Your task to perform on an android device: open sync settings in chrome Image 0: 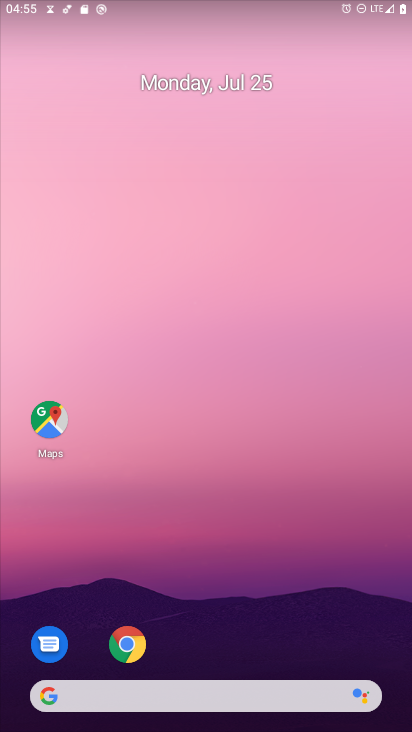
Step 0: press home button
Your task to perform on an android device: open sync settings in chrome Image 1: 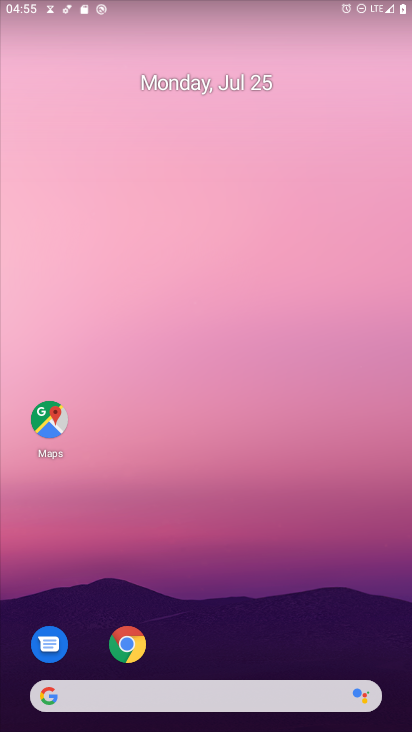
Step 1: click (124, 633)
Your task to perform on an android device: open sync settings in chrome Image 2: 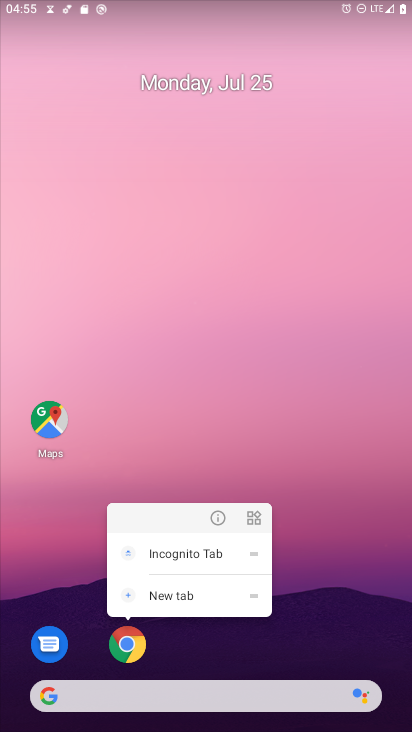
Step 2: click (122, 635)
Your task to perform on an android device: open sync settings in chrome Image 3: 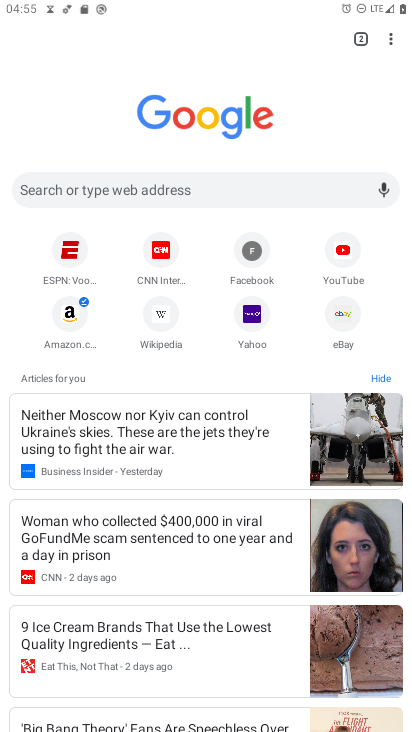
Step 3: drag from (389, 26) to (265, 313)
Your task to perform on an android device: open sync settings in chrome Image 4: 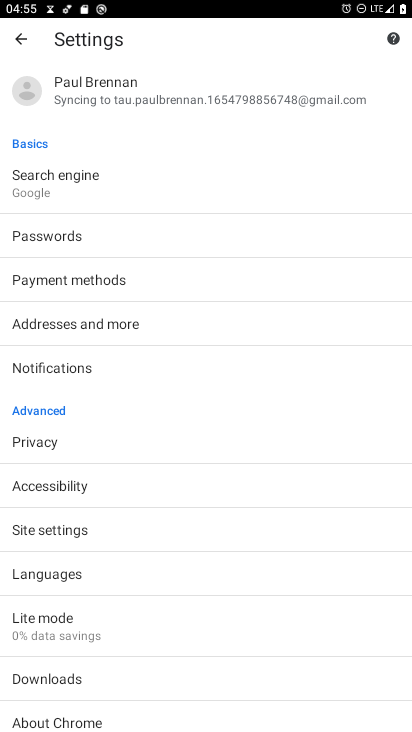
Step 4: click (144, 99)
Your task to perform on an android device: open sync settings in chrome Image 5: 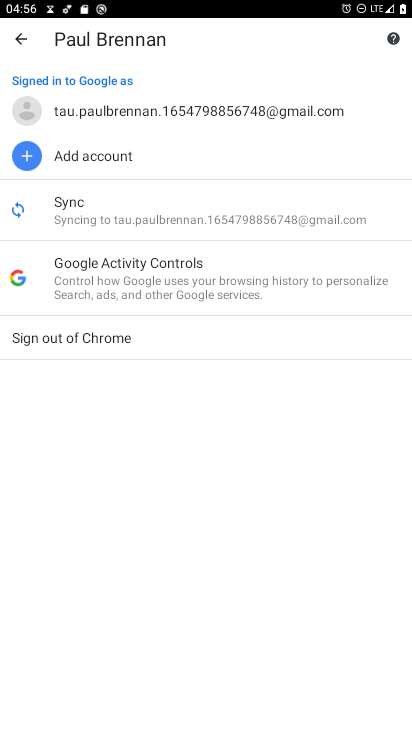
Step 5: click (104, 214)
Your task to perform on an android device: open sync settings in chrome Image 6: 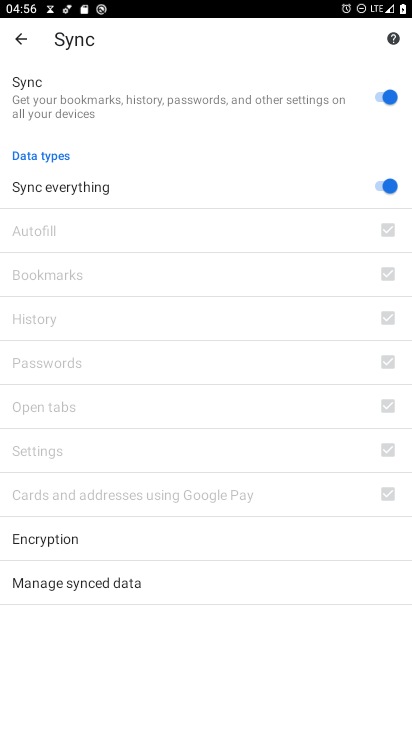
Step 6: task complete